Your task to perform on an android device: see sites visited before in the chrome app Image 0: 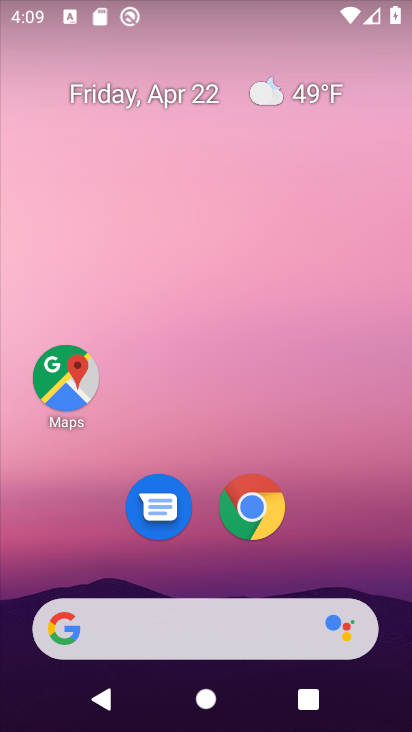
Step 0: click (248, 509)
Your task to perform on an android device: see sites visited before in the chrome app Image 1: 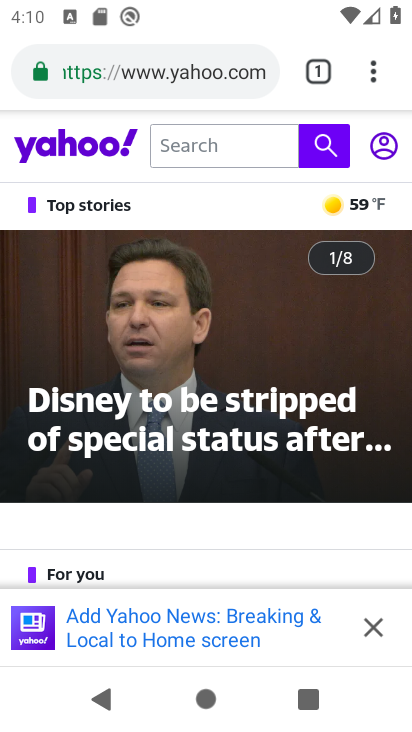
Step 1: click (372, 78)
Your task to perform on an android device: see sites visited before in the chrome app Image 2: 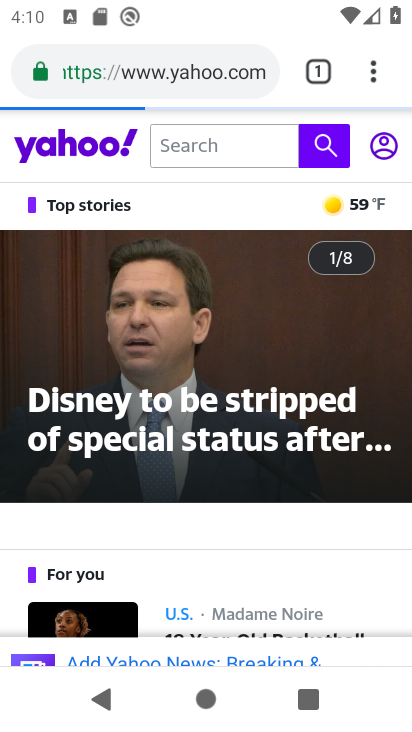
Step 2: click (372, 78)
Your task to perform on an android device: see sites visited before in the chrome app Image 3: 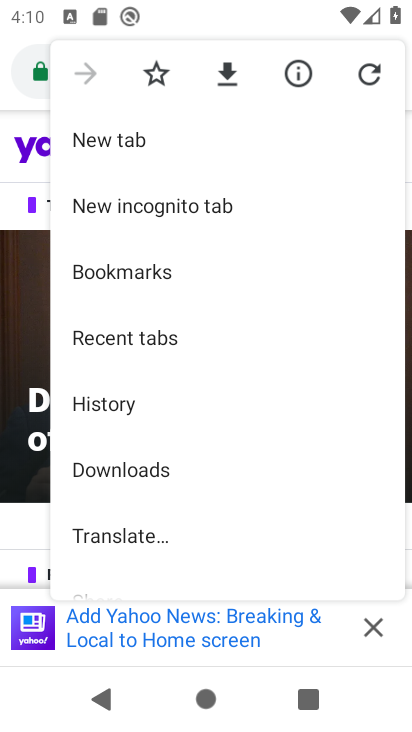
Step 3: click (119, 334)
Your task to perform on an android device: see sites visited before in the chrome app Image 4: 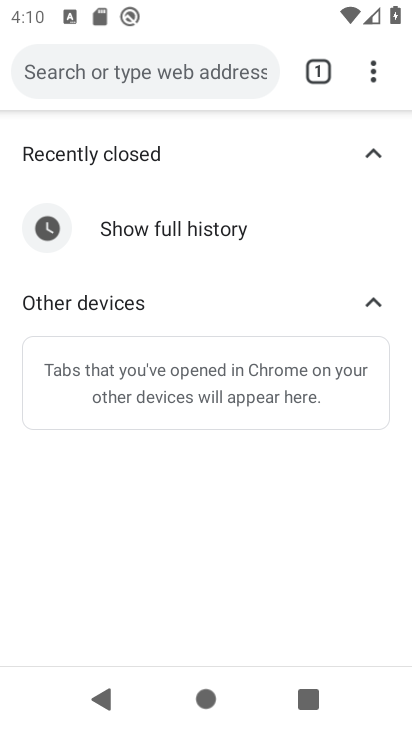
Step 4: click (167, 229)
Your task to perform on an android device: see sites visited before in the chrome app Image 5: 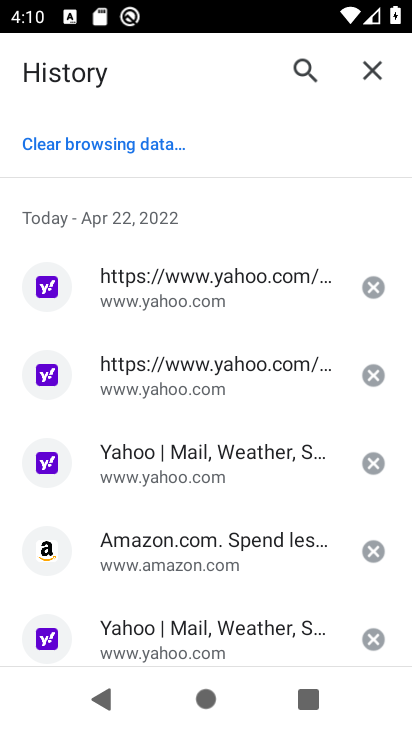
Step 5: task complete